Your task to perform on an android device: Open sound settings Image 0: 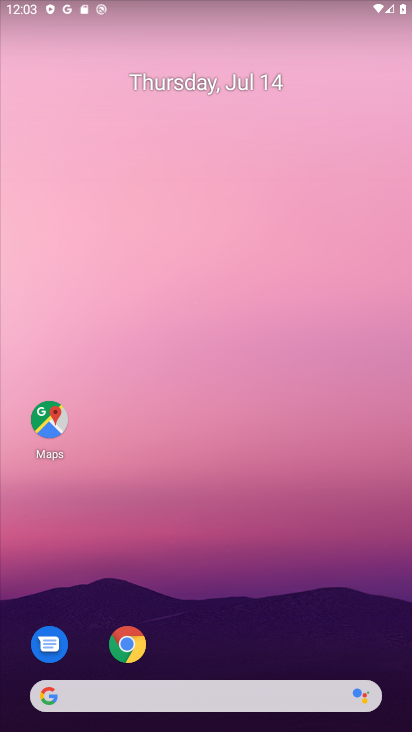
Step 0: drag from (277, 642) to (320, 0)
Your task to perform on an android device: Open sound settings Image 1: 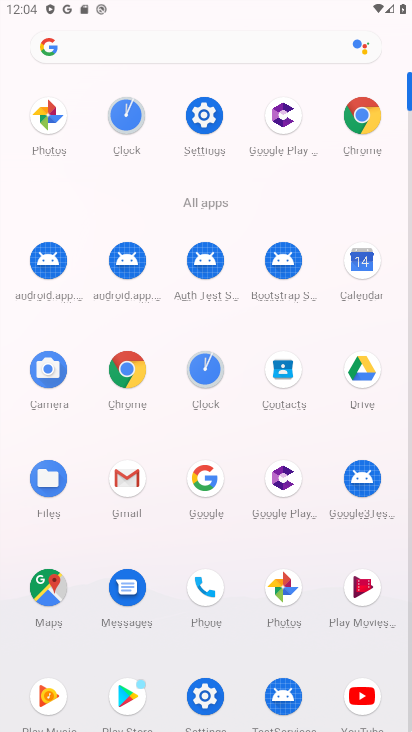
Step 1: click (211, 131)
Your task to perform on an android device: Open sound settings Image 2: 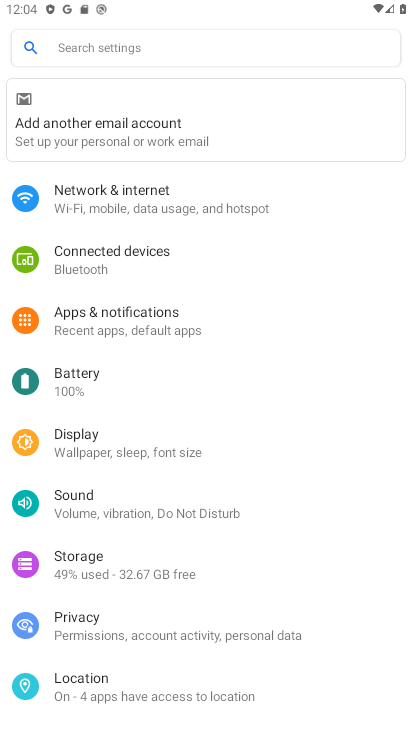
Step 2: click (107, 502)
Your task to perform on an android device: Open sound settings Image 3: 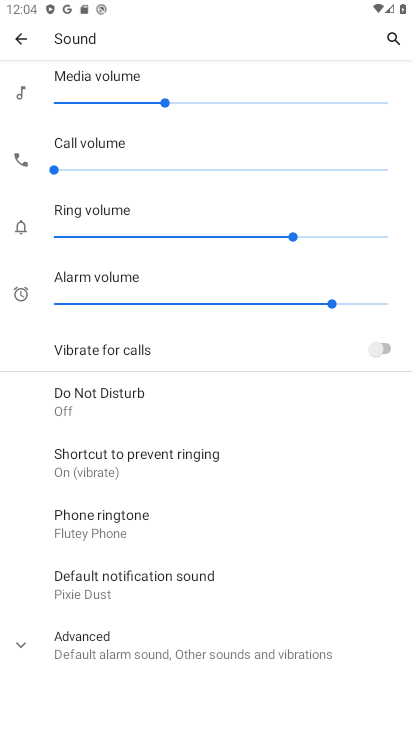
Step 3: task complete